Your task to perform on an android device: change text size in settings app Image 0: 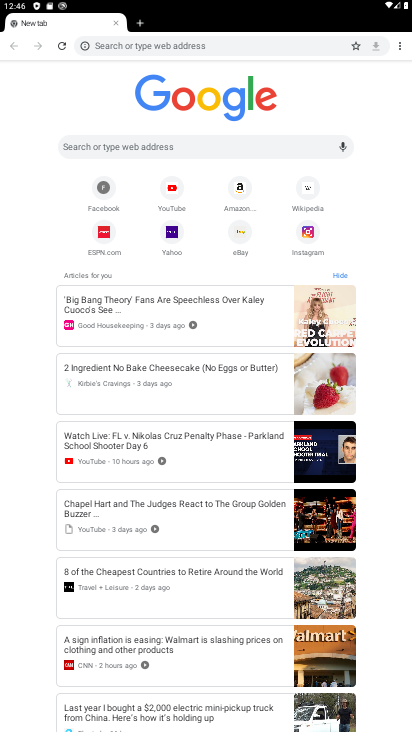
Step 0: drag from (398, 44) to (319, 212)
Your task to perform on an android device: change text size in settings app Image 1: 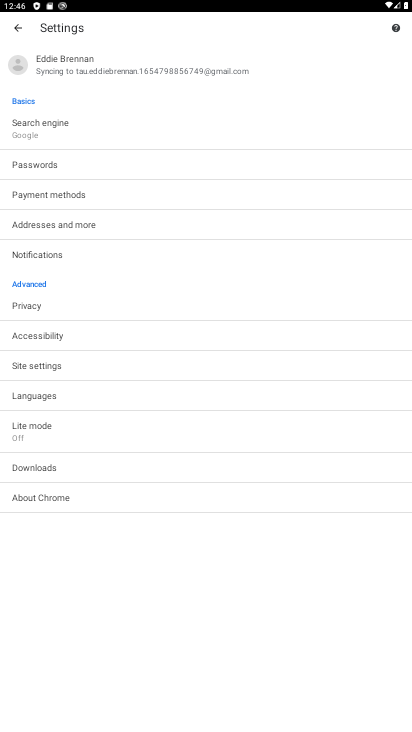
Step 1: press home button
Your task to perform on an android device: change text size in settings app Image 2: 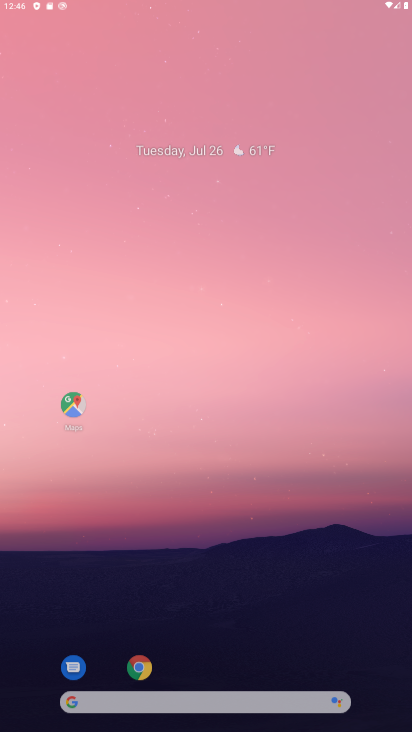
Step 2: drag from (256, 162) to (272, 103)
Your task to perform on an android device: change text size in settings app Image 3: 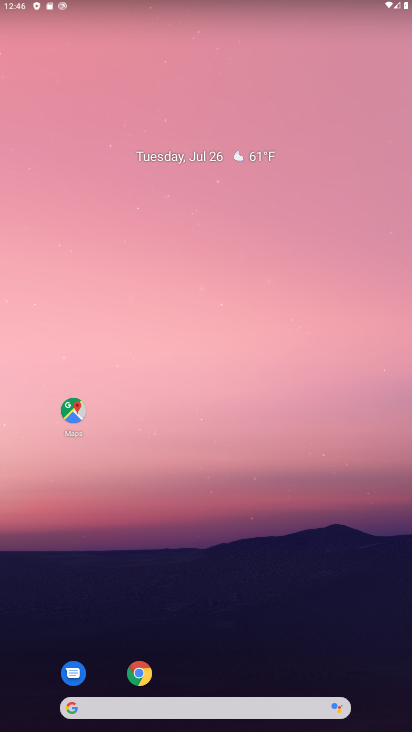
Step 3: drag from (179, 650) to (162, 139)
Your task to perform on an android device: change text size in settings app Image 4: 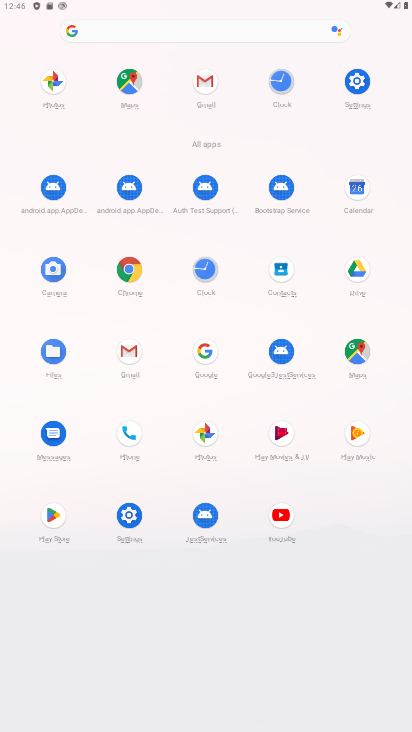
Step 4: click (119, 513)
Your task to perform on an android device: change text size in settings app Image 5: 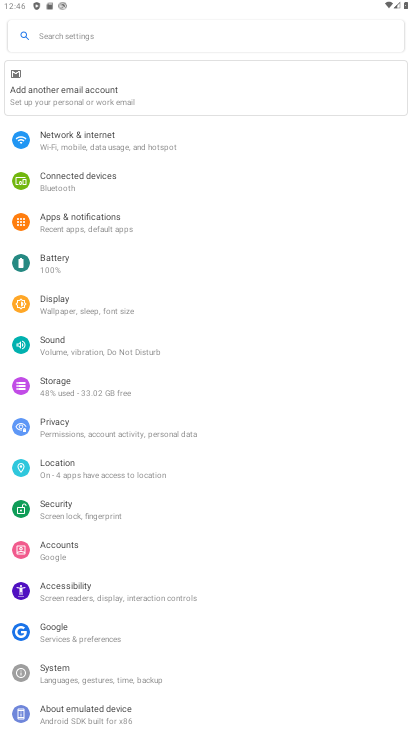
Step 5: click (82, 310)
Your task to perform on an android device: change text size in settings app Image 6: 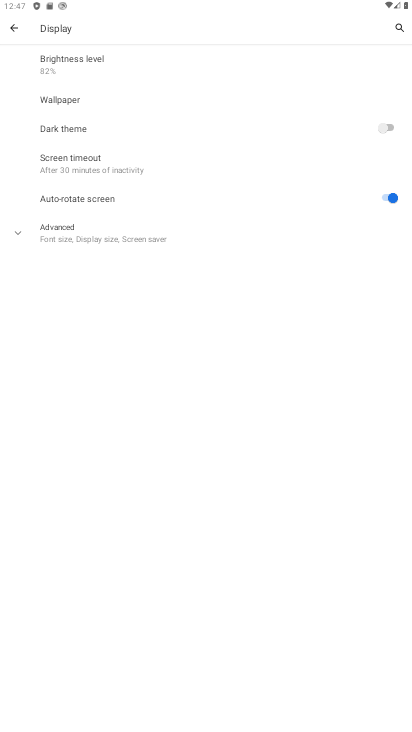
Step 6: click (105, 238)
Your task to perform on an android device: change text size in settings app Image 7: 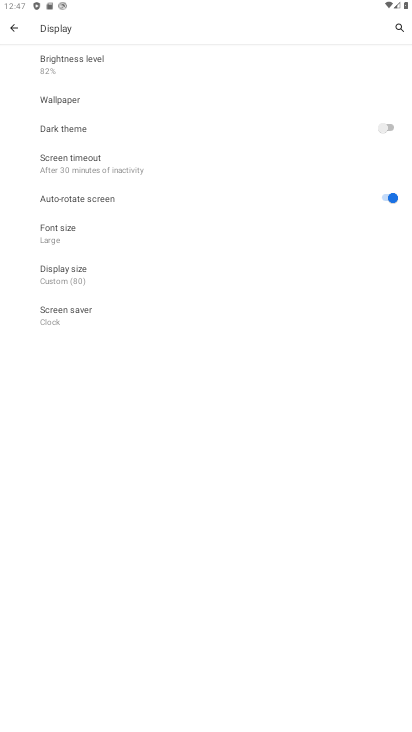
Step 7: click (98, 239)
Your task to perform on an android device: change text size in settings app Image 8: 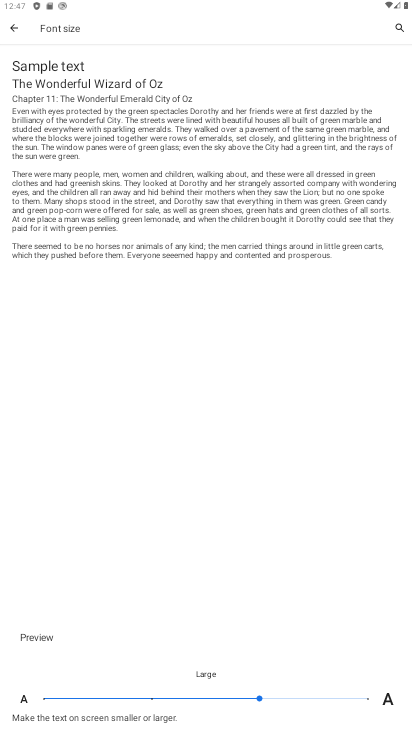
Step 8: click (348, 696)
Your task to perform on an android device: change text size in settings app Image 9: 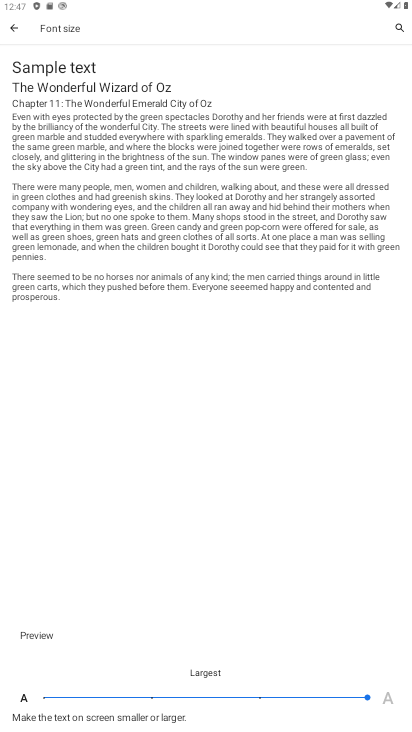
Step 9: task complete